Your task to perform on an android device: show emergency info Image 0: 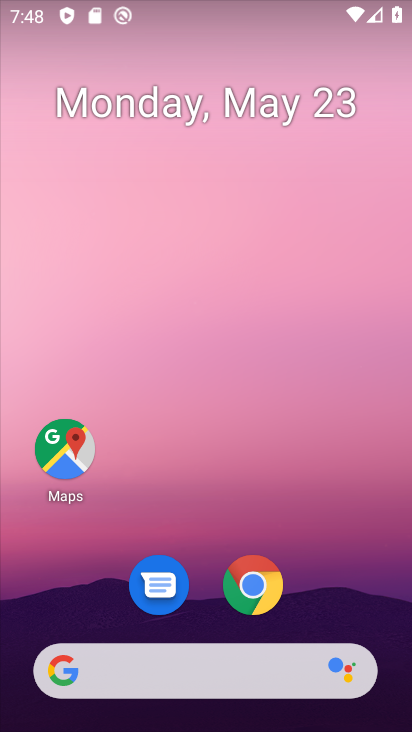
Step 0: drag from (310, 557) to (316, 61)
Your task to perform on an android device: show emergency info Image 1: 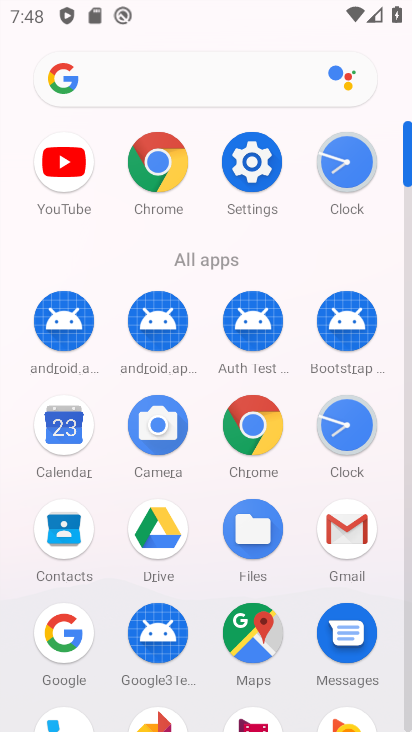
Step 1: click (264, 153)
Your task to perform on an android device: show emergency info Image 2: 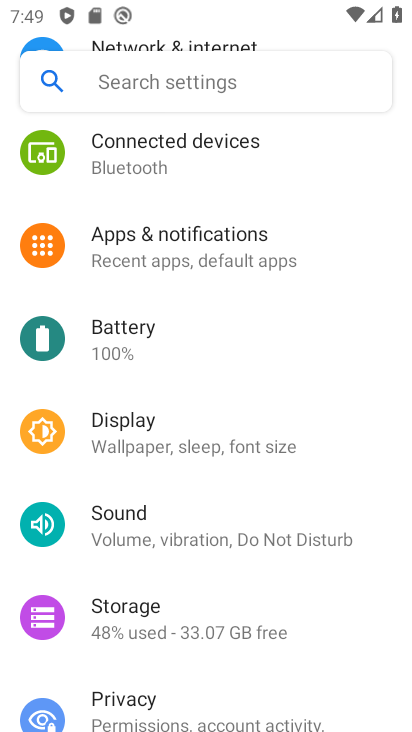
Step 2: drag from (217, 473) to (271, 68)
Your task to perform on an android device: show emergency info Image 3: 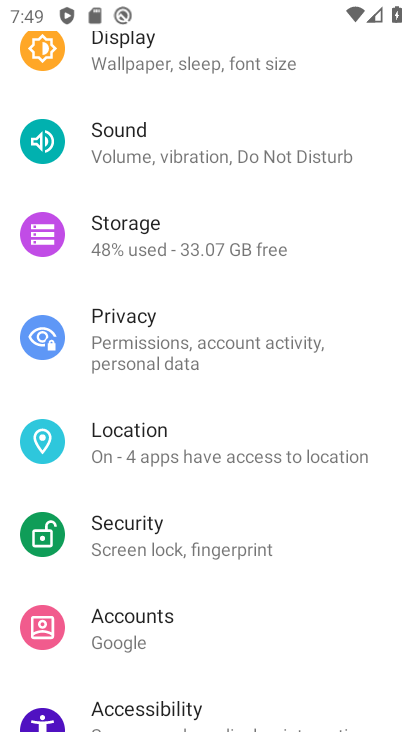
Step 3: drag from (215, 407) to (218, 51)
Your task to perform on an android device: show emergency info Image 4: 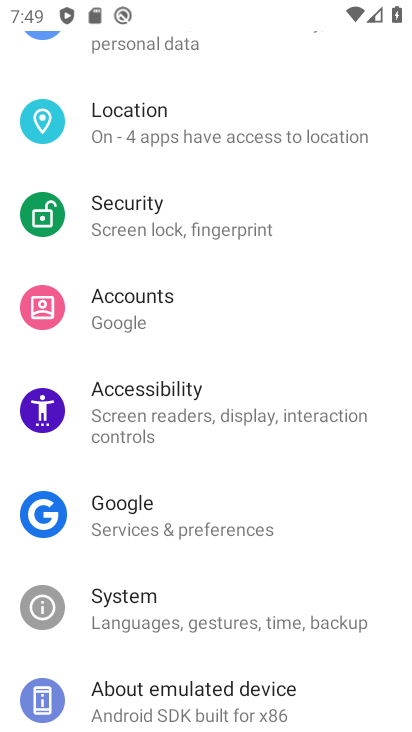
Step 4: drag from (220, 352) to (238, 114)
Your task to perform on an android device: show emergency info Image 5: 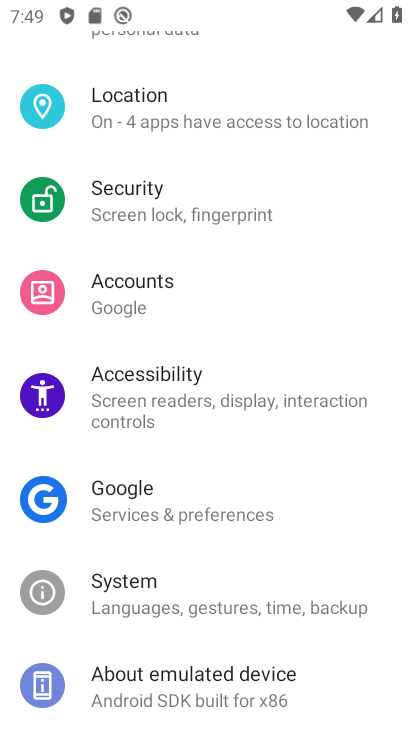
Step 5: click (179, 685)
Your task to perform on an android device: show emergency info Image 6: 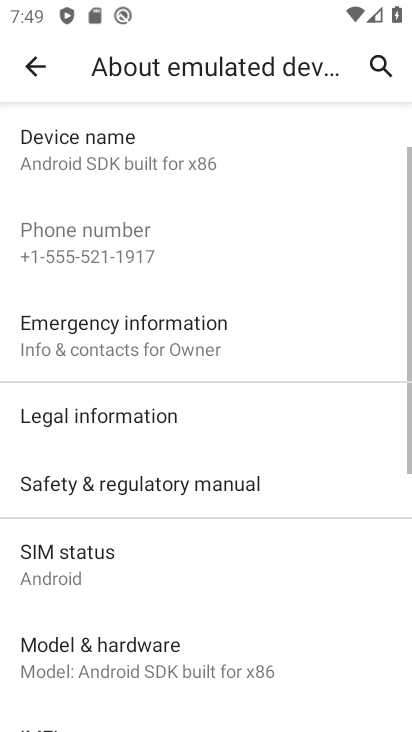
Step 6: click (201, 335)
Your task to perform on an android device: show emergency info Image 7: 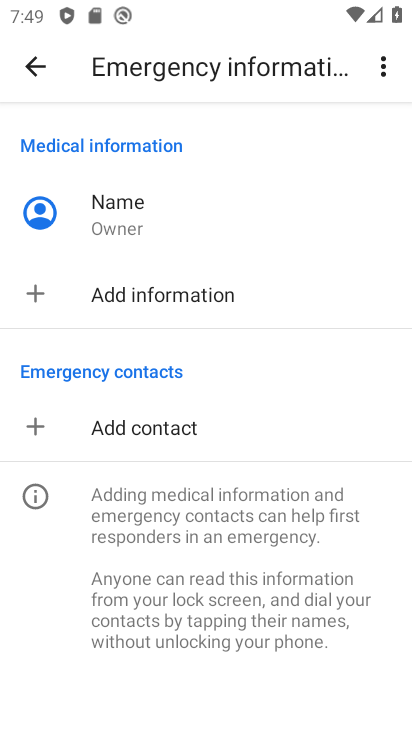
Step 7: task complete